Your task to perform on an android device: open a new tab in the chrome app Image 0: 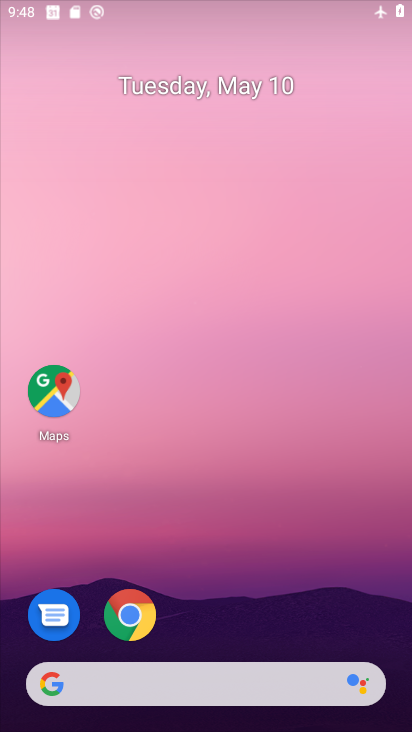
Step 0: drag from (218, 600) to (295, 195)
Your task to perform on an android device: open a new tab in the chrome app Image 1: 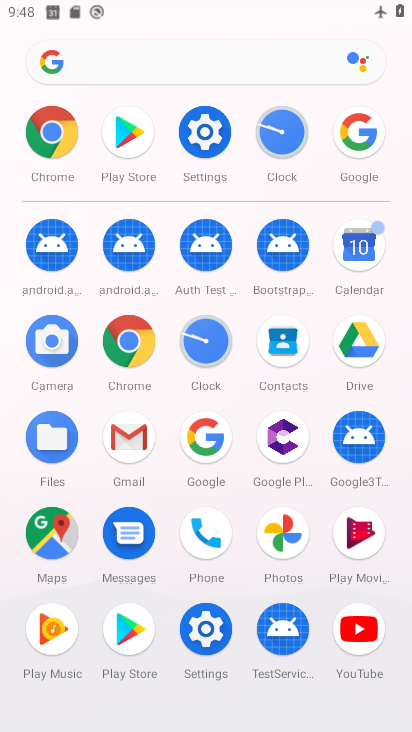
Step 1: click (132, 330)
Your task to perform on an android device: open a new tab in the chrome app Image 2: 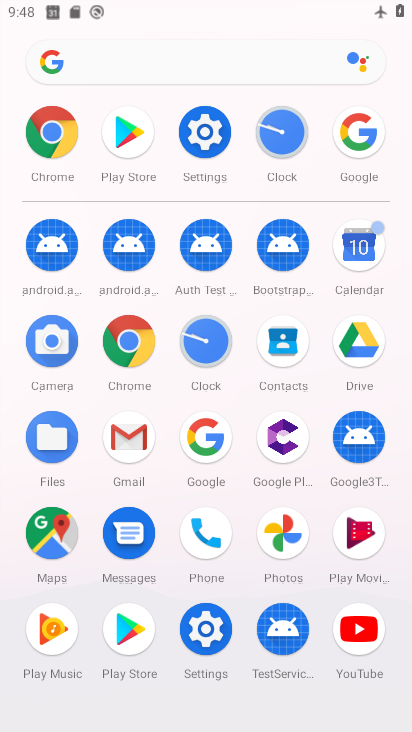
Step 2: click (129, 334)
Your task to perform on an android device: open a new tab in the chrome app Image 3: 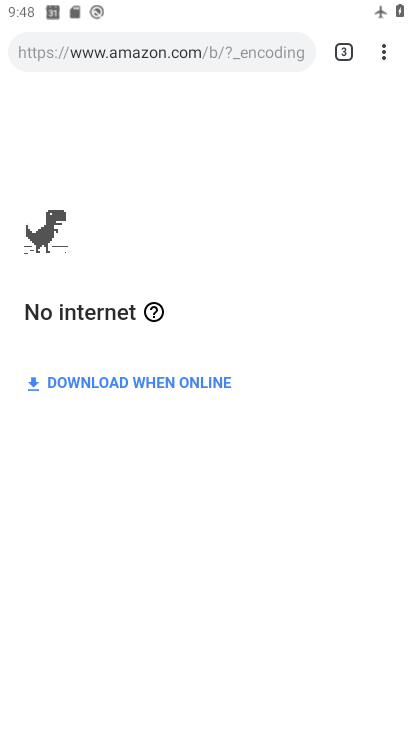
Step 3: drag from (157, 530) to (234, 282)
Your task to perform on an android device: open a new tab in the chrome app Image 4: 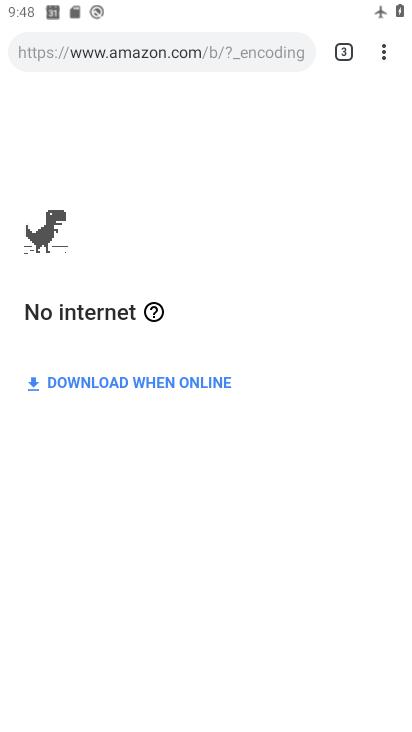
Step 4: click (247, 205)
Your task to perform on an android device: open a new tab in the chrome app Image 5: 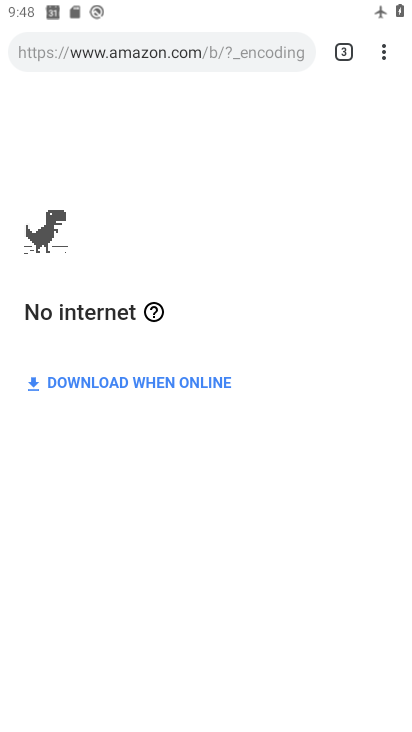
Step 5: click (243, 204)
Your task to perform on an android device: open a new tab in the chrome app Image 6: 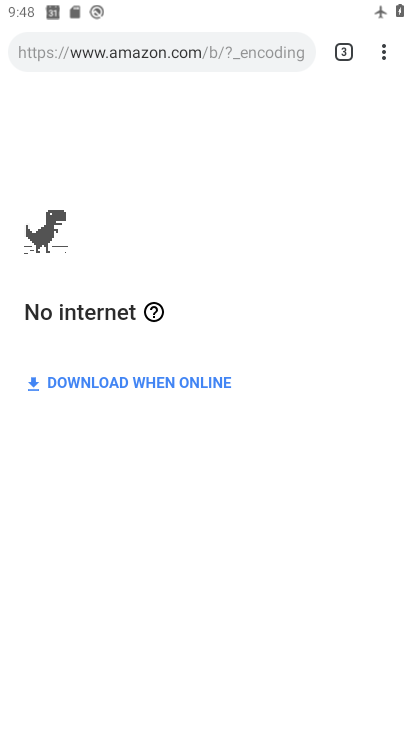
Step 6: click (248, 246)
Your task to perform on an android device: open a new tab in the chrome app Image 7: 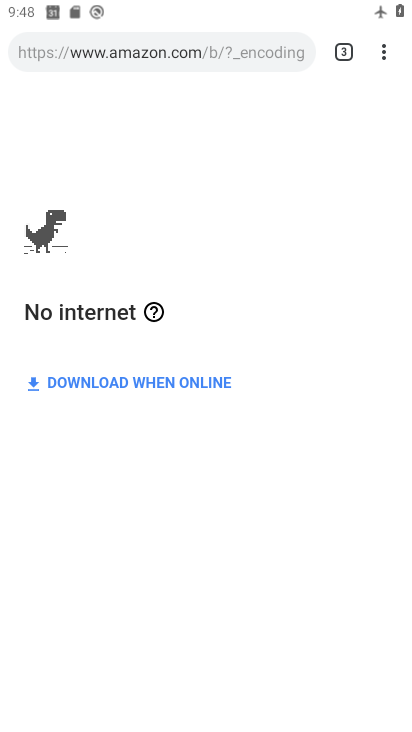
Step 7: click (248, 246)
Your task to perform on an android device: open a new tab in the chrome app Image 8: 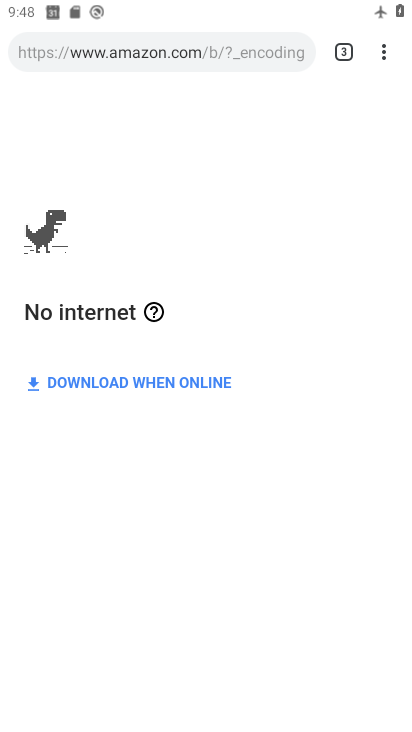
Step 8: drag from (180, 436) to (250, 296)
Your task to perform on an android device: open a new tab in the chrome app Image 9: 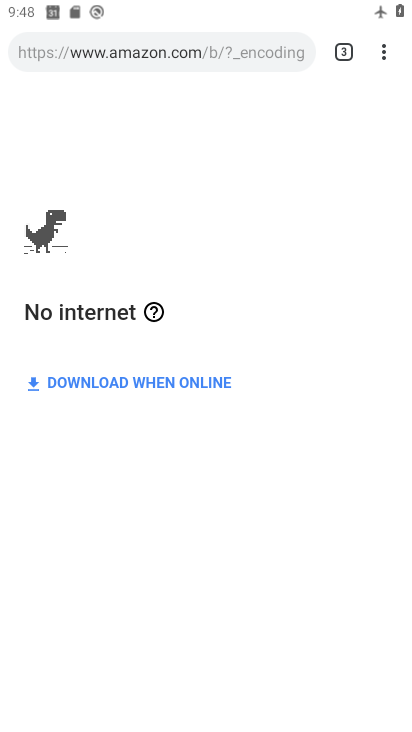
Step 9: click (371, 60)
Your task to perform on an android device: open a new tab in the chrome app Image 10: 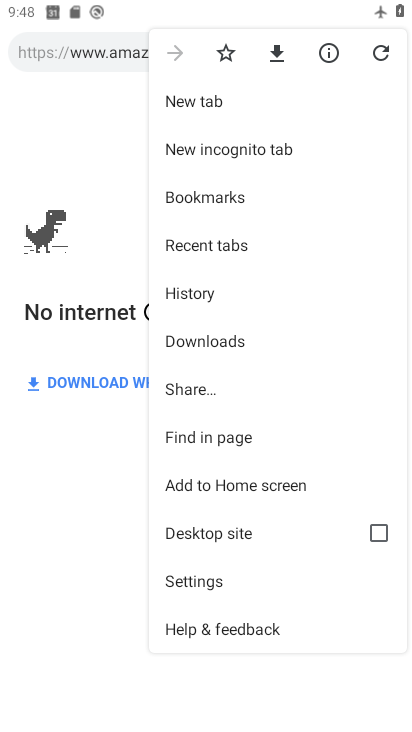
Step 10: click (108, 181)
Your task to perform on an android device: open a new tab in the chrome app Image 11: 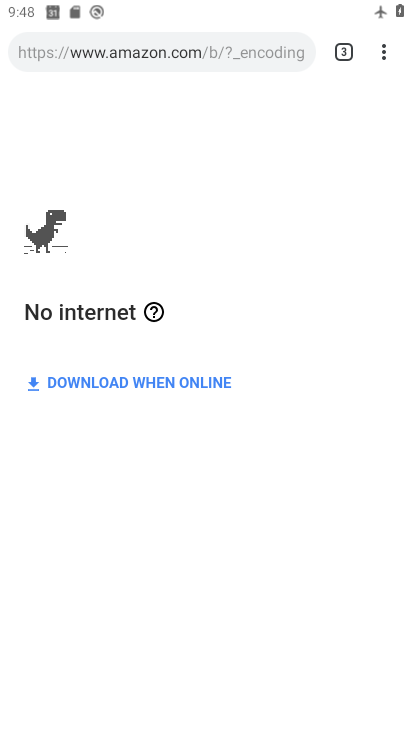
Step 11: click (346, 67)
Your task to perform on an android device: open a new tab in the chrome app Image 12: 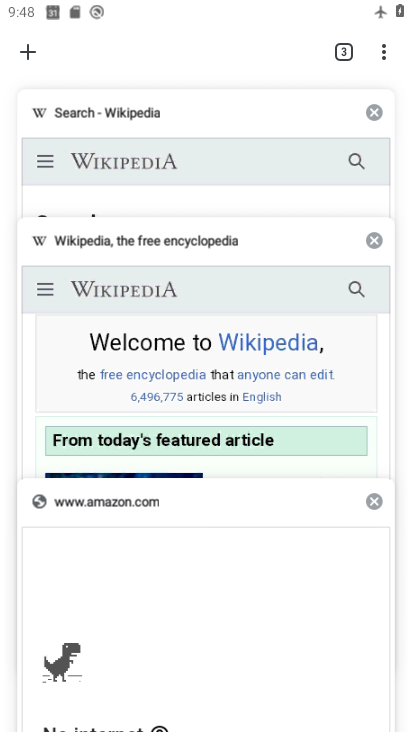
Step 12: click (38, 50)
Your task to perform on an android device: open a new tab in the chrome app Image 13: 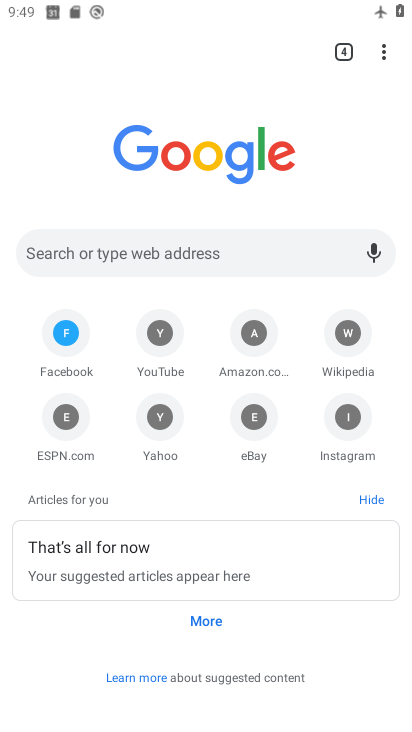
Step 13: task complete